Your task to perform on an android device: turn on the 24-hour format for clock Image 0: 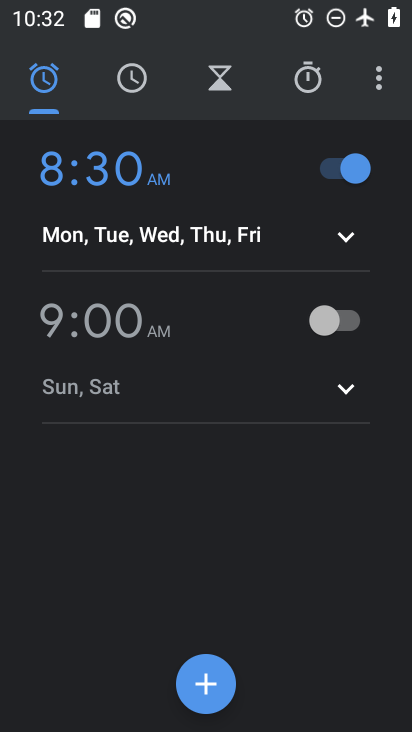
Step 0: click (374, 91)
Your task to perform on an android device: turn on the 24-hour format for clock Image 1: 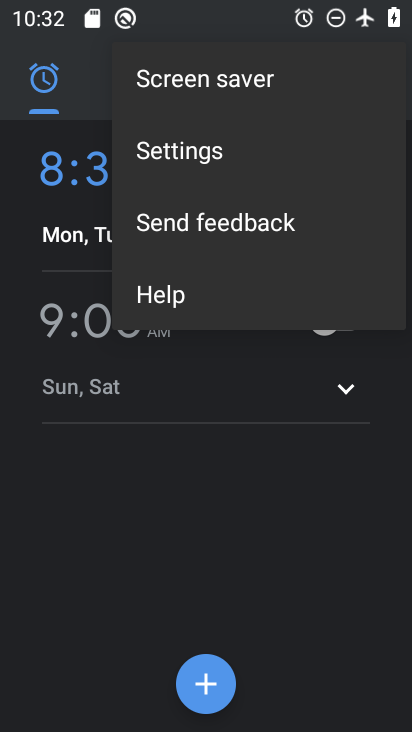
Step 1: click (212, 168)
Your task to perform on an android device: turn on the 24-hour format for clock Image 2: 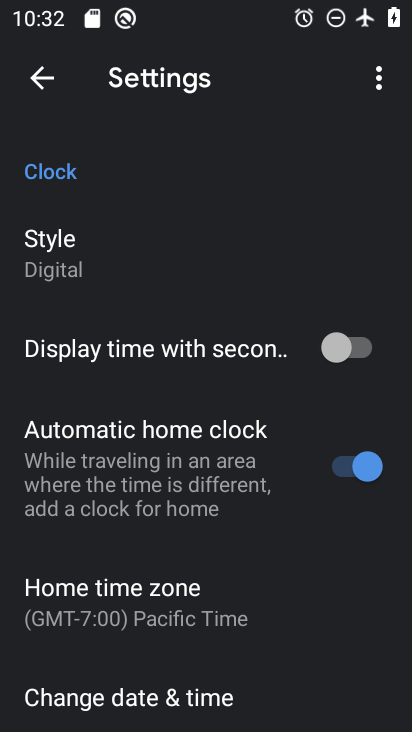
Step 2: drag from (204, 655) to (199, 293)
Your task to perform on an android device: turn on the 24-hour format for clock Image 3: 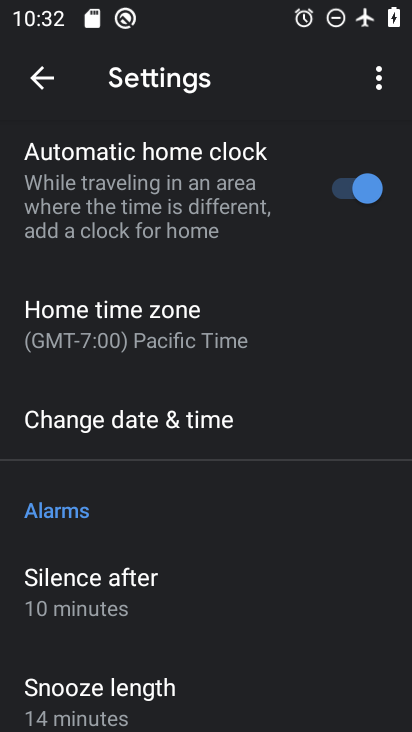
Step 3: click (216, 413)
Your task to perform on an android device: turn on the 24-hour format for clock Image 4: 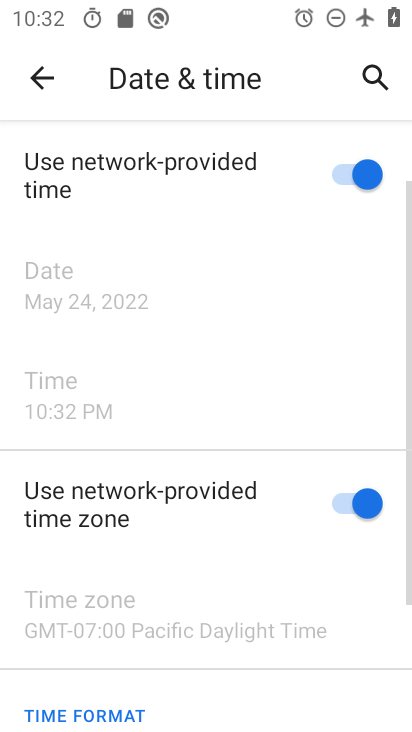
Step 4: drag from (234, 591) to (234, 168)
Your task to perform on an android device: turn on the 24-hour format for clock Image 5: 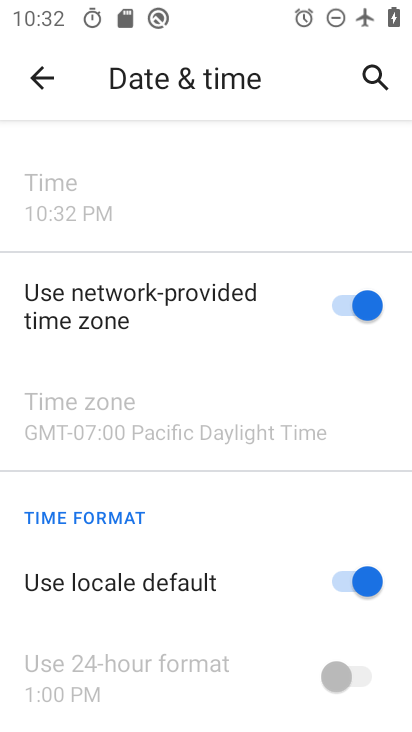
Step 5: click (352, 598)
Your task to perform on an android device: turn on the 24-hour format for clock Image 6: 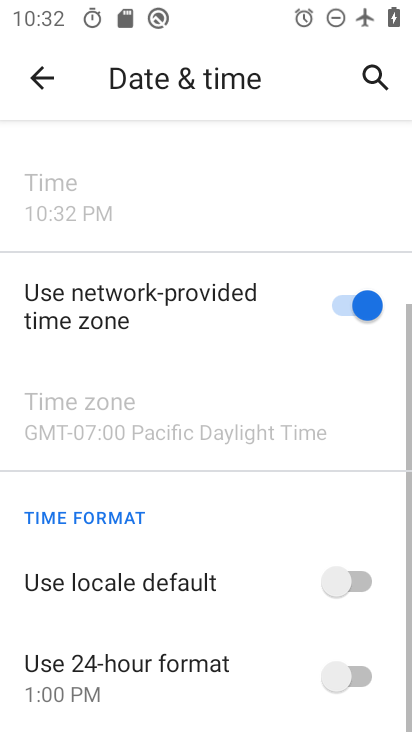
Step 6: click (366, 673)
Your task to perform on an android device: turn on the 24-hour format for clock Image 7: 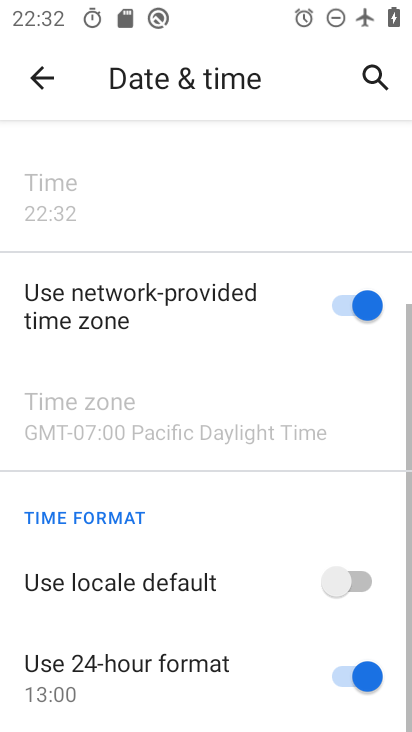
Step 7: task complete